Your task to perform on an android device: Open Yahoo.com Image 0: 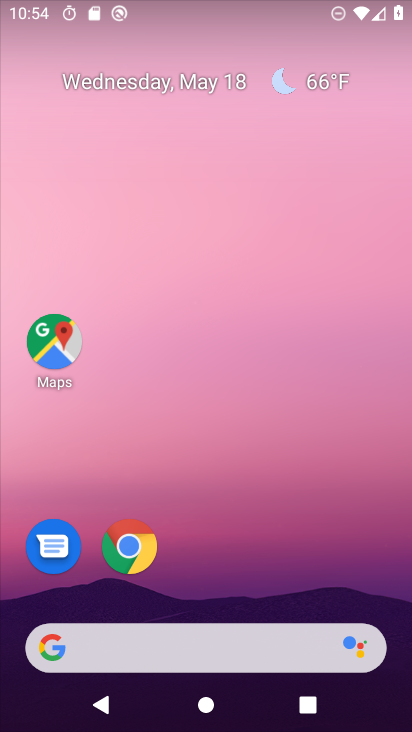
Step 0: click (134, 544)
Your task to perform on an android device: Open Yahoo.com Image 1: 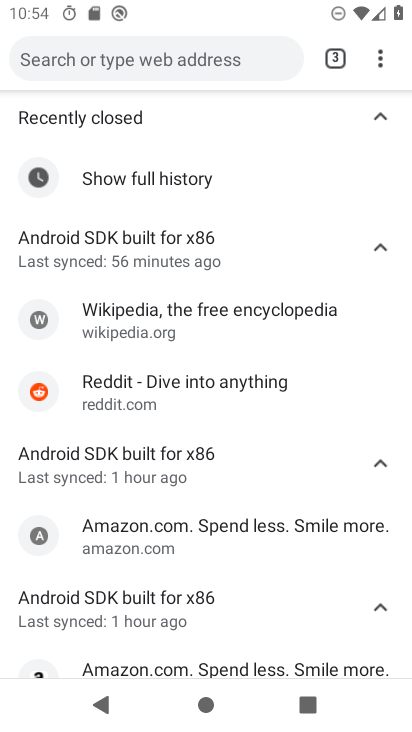
Step 1: click (334, 61)
Your task to perform on an android device: Open Yahoo.com Image 2: 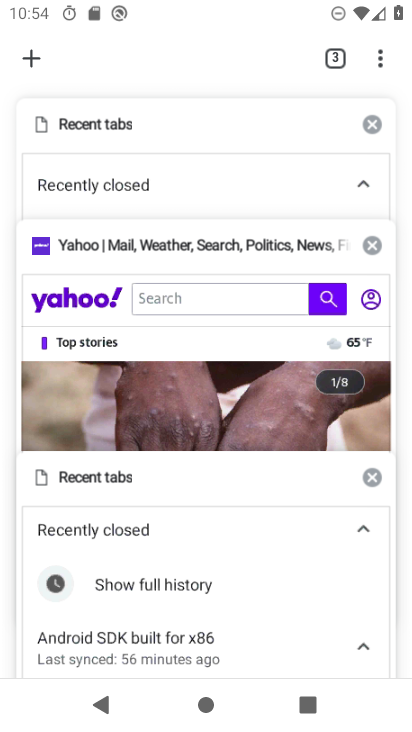
Step 2: click (109, 345)
Your task to perform on an android device: Open Yahoo.com Image 3: 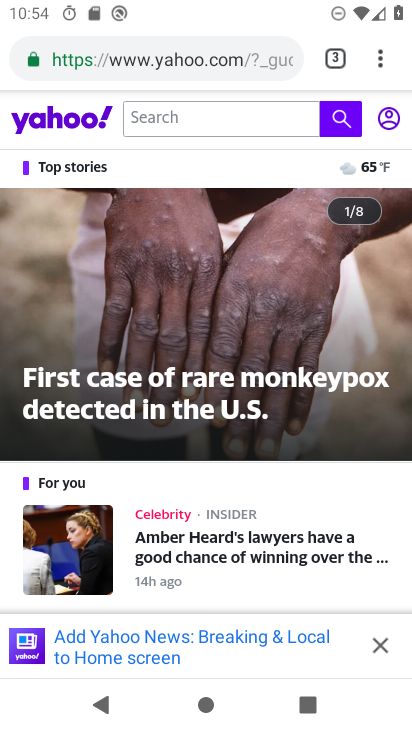
Step 3: task complete